Your task to perform on an android device: refresh tabs in the chrome app Image 0: 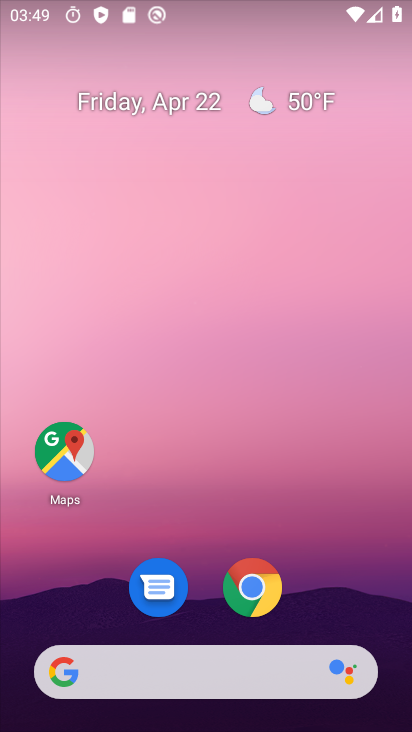
Step 0: click (255, 594)
Your task to perform on an android device: refresh tabs in the chrome app Image 1: 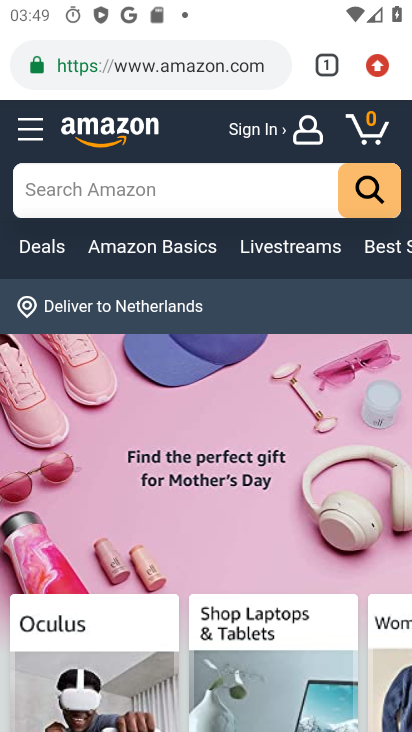
Step 1: click (380, 69)
Your task to perform on an android device: refresh tabs in the chrome app Image 2: 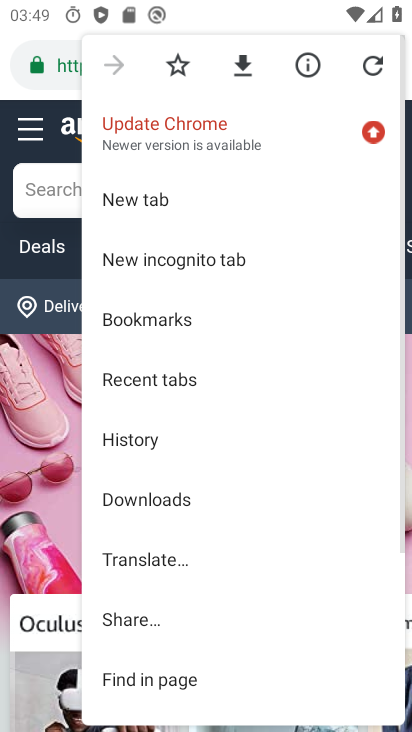
Step 2: click (380, 69)
Your task to perform on an android device: refresh tabs in the chrome app Image 3: 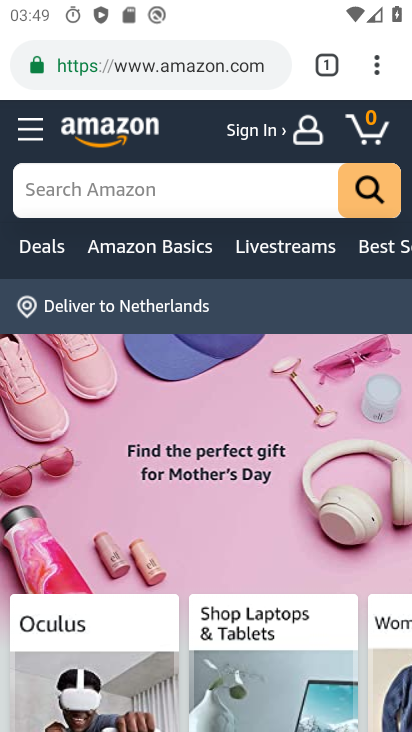
Step 3: task complete